Your task to perform on an android device: Check the news Image 0: 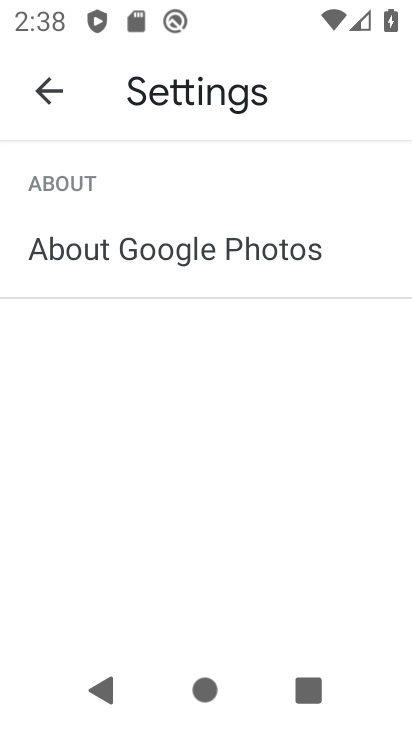
Step 0: press home button
Your task to perform on an android device: Check the news Image 1: 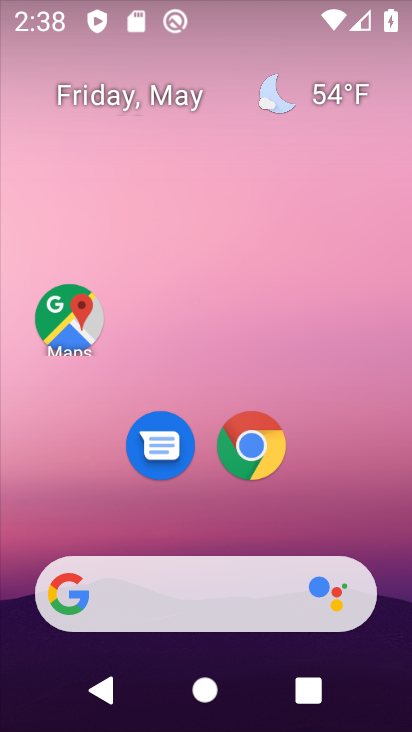
Step 1: drag from (367, 520) to (308, 207)
Your task to perform on an android device: Check the news Image 2: 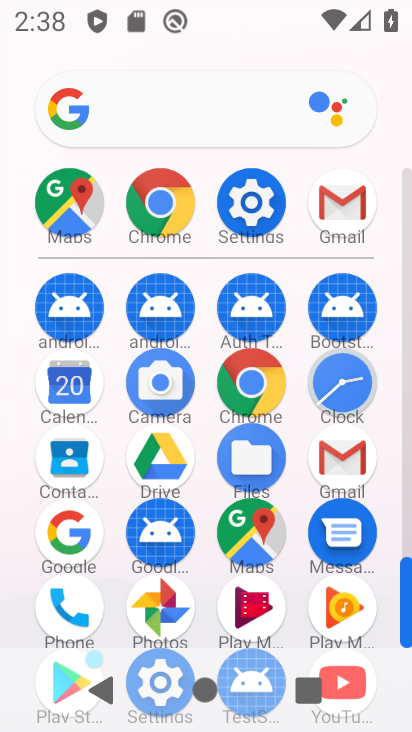
Step 2: click (149, 218)
Your task to perform on an android device: Check the news Image 3: 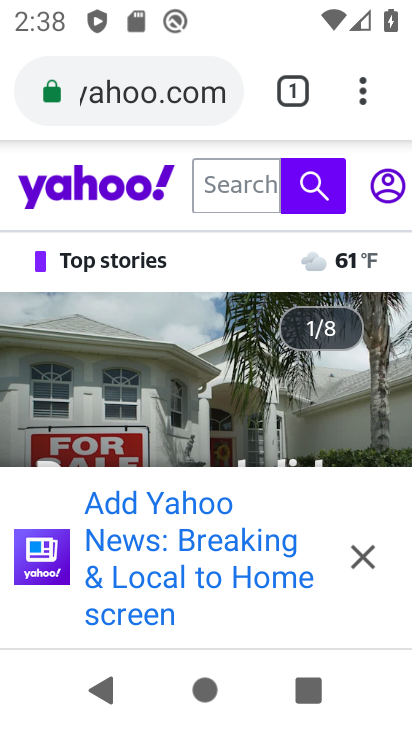
Step 3: click (152, 90)
Your task to perform on an android device: Check the news Image 4: 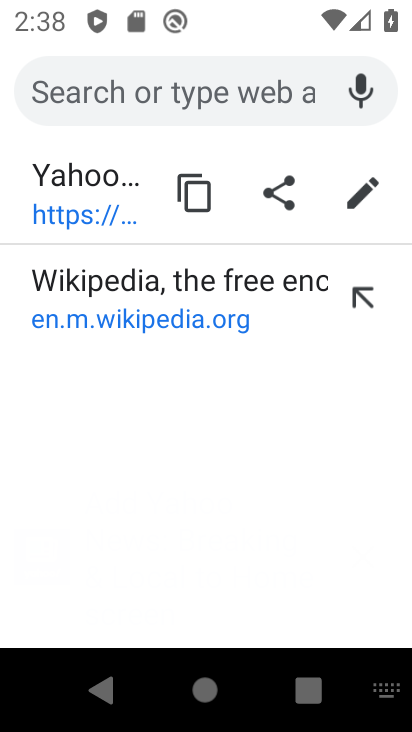
Step 4: type "check the news"
Your task to perform on an android device: Check the news Image 5: 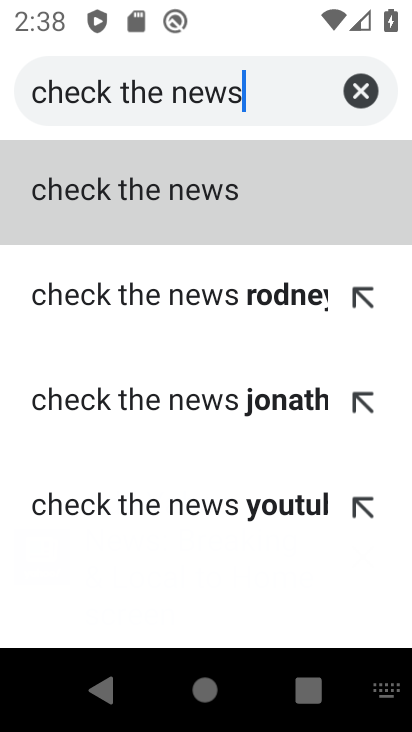
Step 5: click (231, 191)
Your task to perform on an android device: Check the news Image 6: 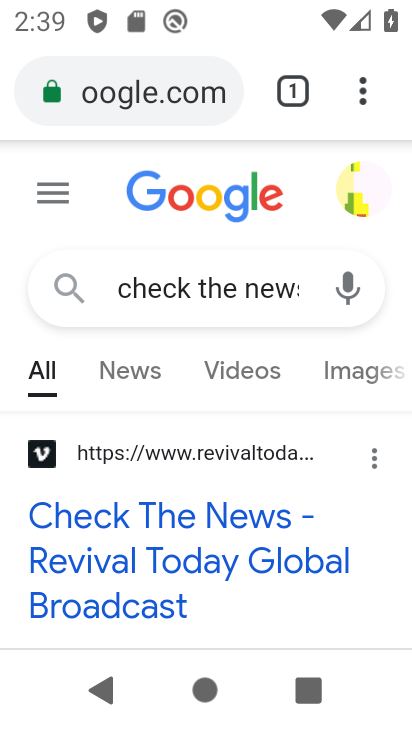
Step 6: task complete